Your task to perform on an android device: change keyboard looks Image 0: 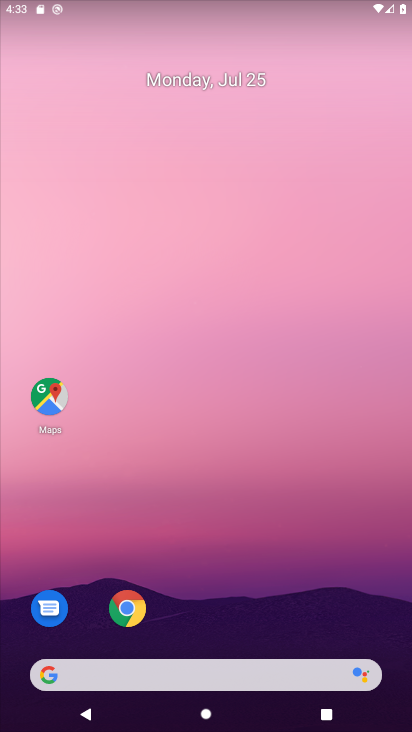
Step 0: drag from (225, 543) to (244, 7)
Your task to perform on an android device: change keyboard looks Image 1: 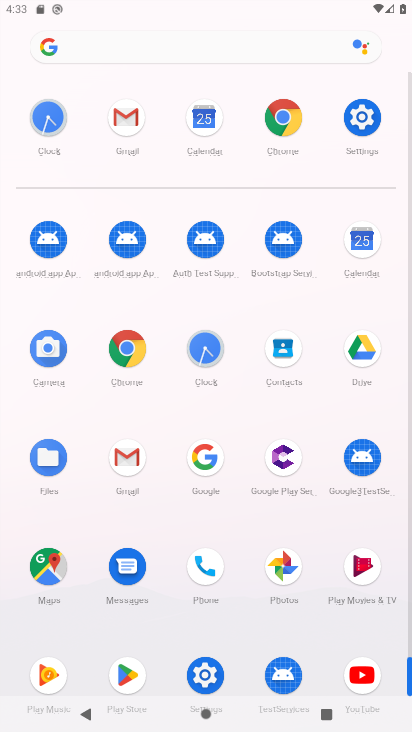
Step 1: click (202, 672)
Your task to perform on an android device: change keyboard looks Image 2: 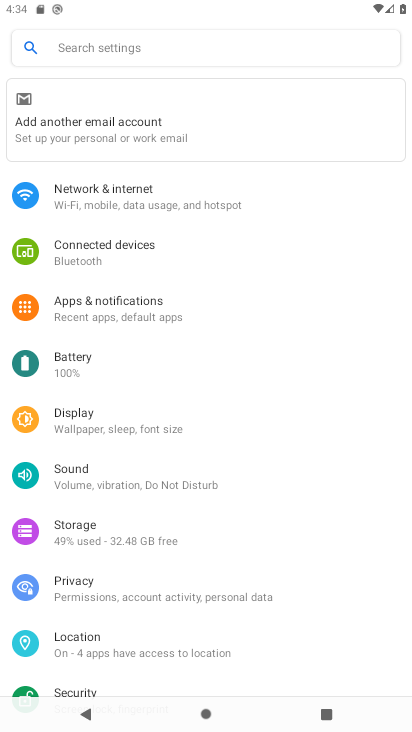
Step 2: drag from (167, 653) to (169, 224)
Your task to perform on an android device: change keyboard looks Image 3: 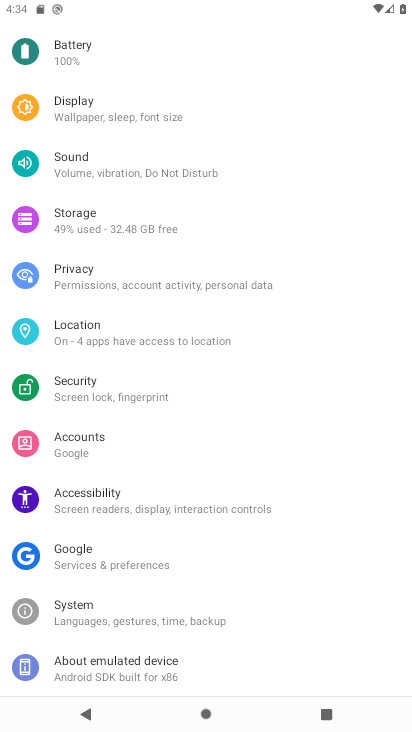
Step 3: click (97, 620)
Your task to perform on an android device: change keyboard looks Image 4: 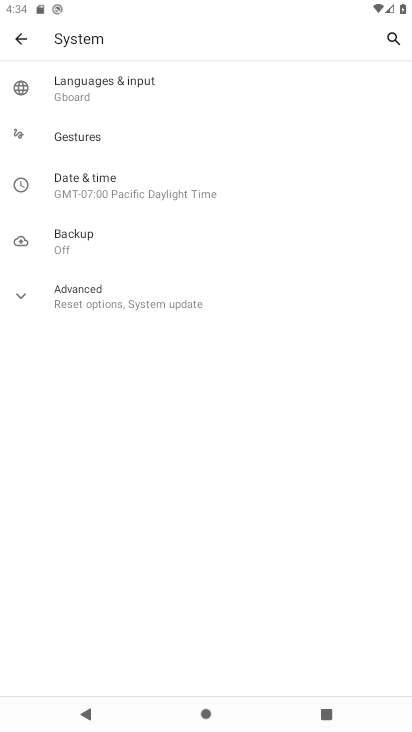
Step 4: click (92, 87)
Your task to perform on an android device: change keyboard looks Image 5: 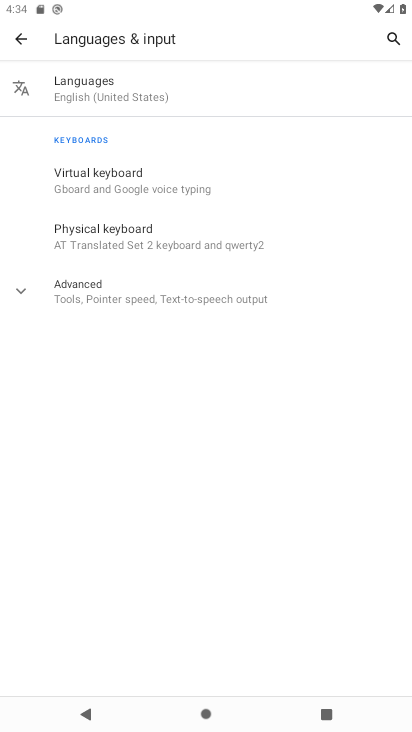
Step 5: click (128, 188)
Your task to perform on an android device: change keyboard looks Image 6: 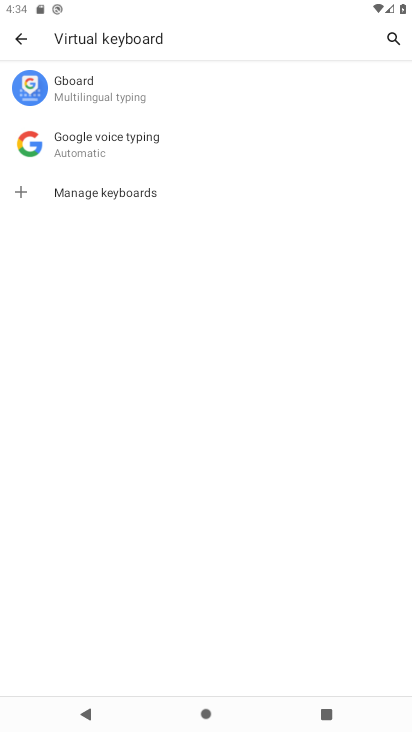
Step 6: click (115, 91)
Your task to perform on an android device: change keyboard looks Image 7: 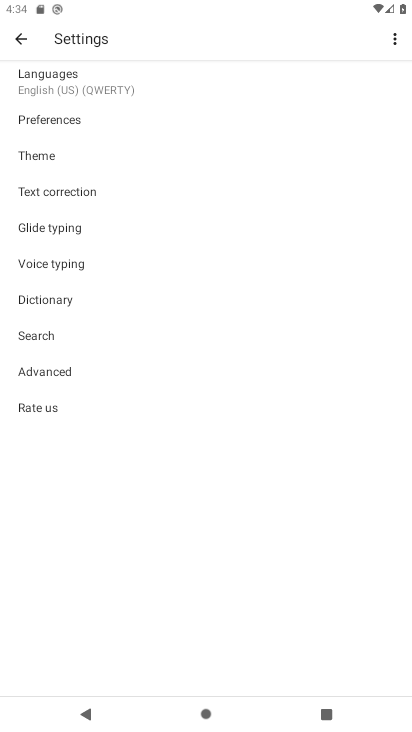
Step 7: click (62, 166)
Your task to perform on an android device: change keyboard looks Image 8: 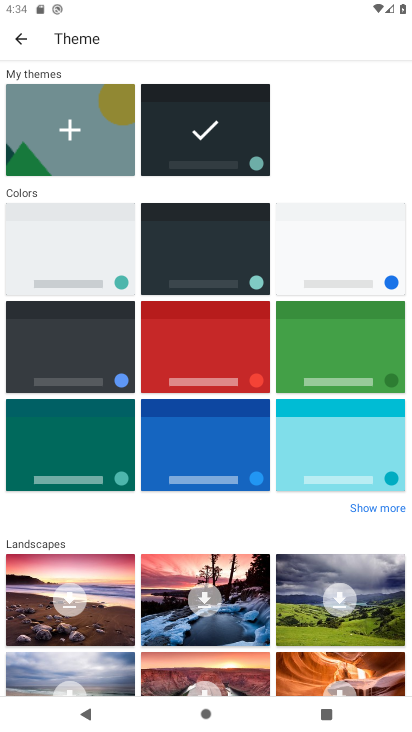
Step 8: click (210, 244)
Your task to perform on an android device: change keyboard looks Image 9: 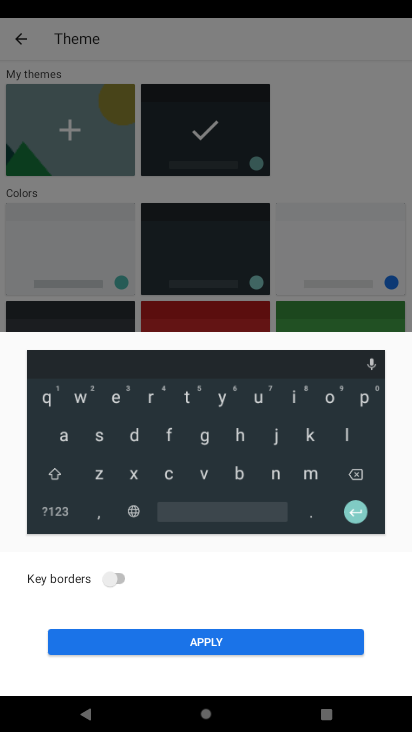
Step 9: click (230, 648)
Your task to perform on an android device: change keyboard looks Image 10: 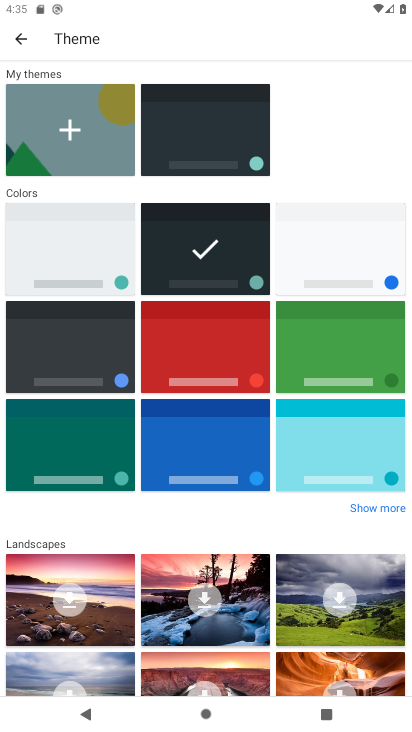
Step 10: task complete